Your task to perform on an android device: toggle location history Image 0: 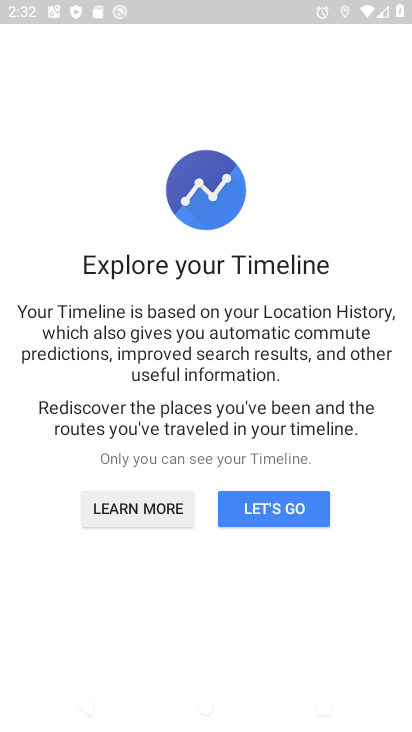
Step 0: press home button
Your task to perform on an android device: toggle location history Image 1: 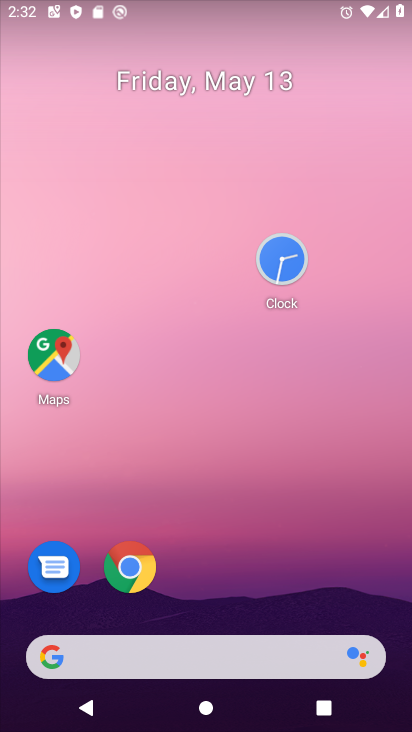
Step 1: drag from (214, 639) to (104, 151)
Your task to perform on an android device: toggle location history Image 2: 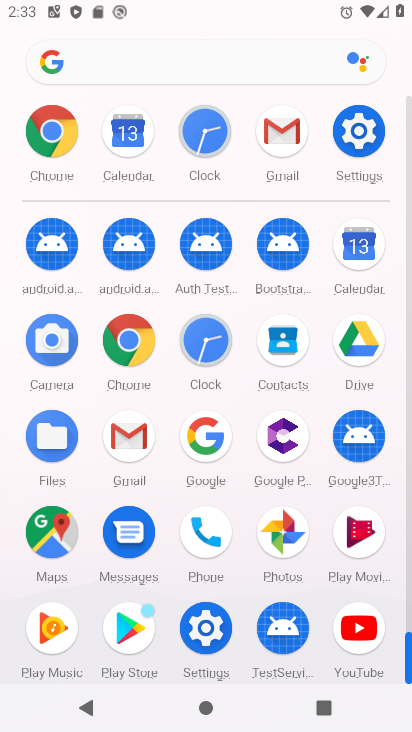
Step 2: click (61, 164)
Your task to perform on an android device: toggle location history Image 3: 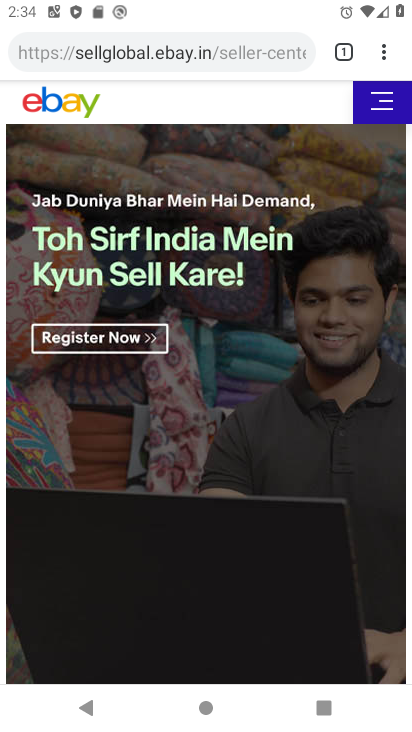
Step 3: click (376, 61)
Your task to perform on an android device: toggle location history Image 4: 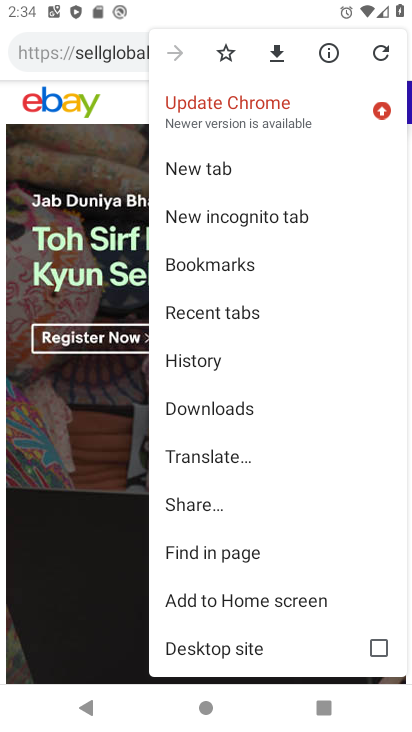
Step 4: click (219, 362)
Your task to perform on an android device: toggle location history Image 5: 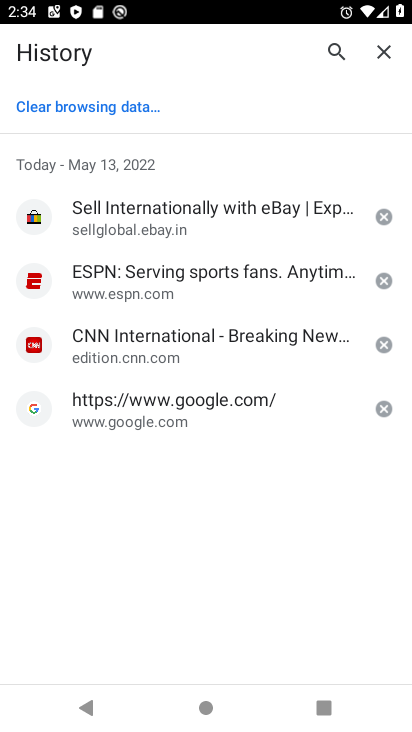
Step 5: click (107, 107)
Your task to perform on an android device: toggle location history Image 6: 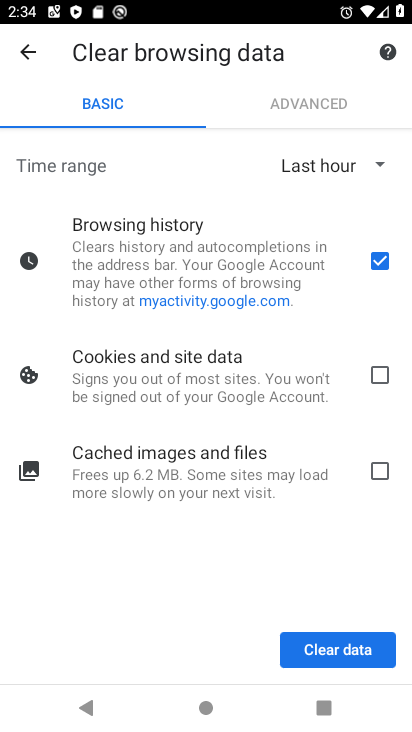
Step 6: click (367, 623)
Your task to perform on an android device: toggle location history Image 7: 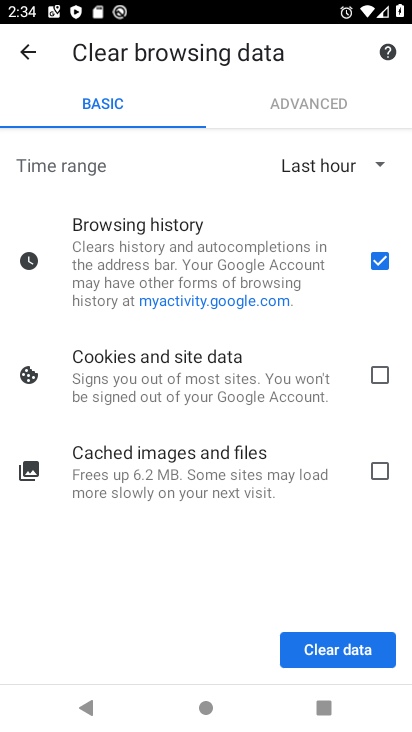
Step 7: click (347, 660)
Your task to perform on an android device: toggle location history Image 8: 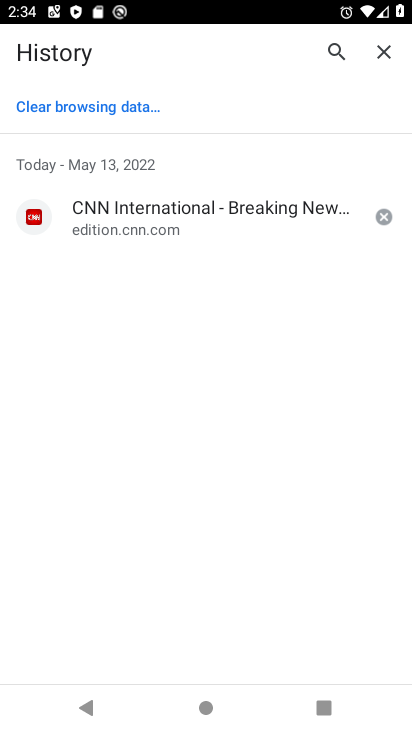
Step 8: task complete